Your task to perform on an android device: Open calendar and show me the fourth week of next month Image 0: 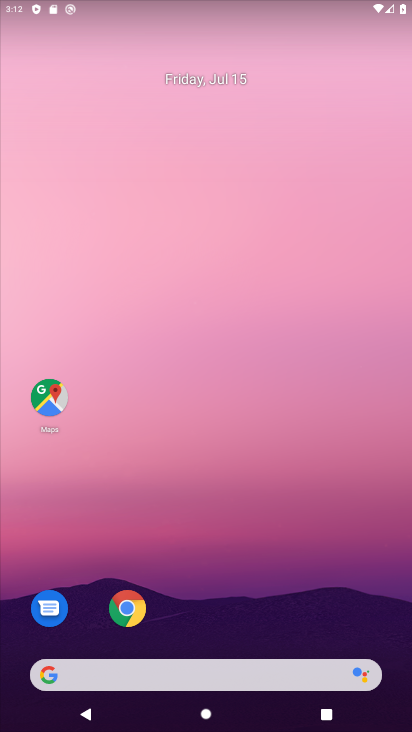
Step 0: drag from (183, 172) to (194, 8)
Your task to perform on an android device: Open calendar and show me the fourth week of next month Image 1: 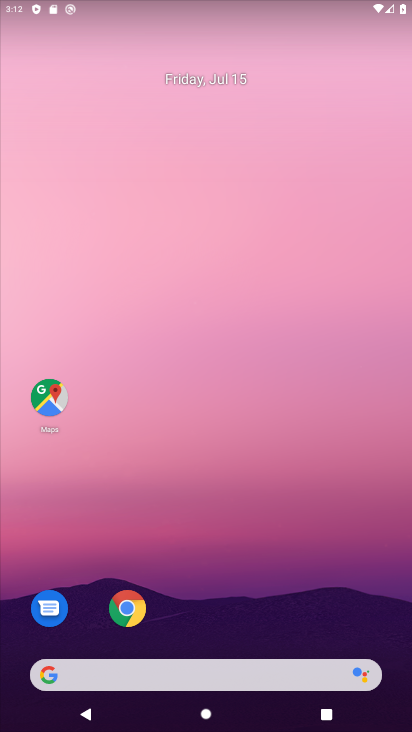
Step 1: drag from (202, 533) to (209, 186)
Your task to perform on an android device: Open calendar and show me the fourth week of next month Image 2: 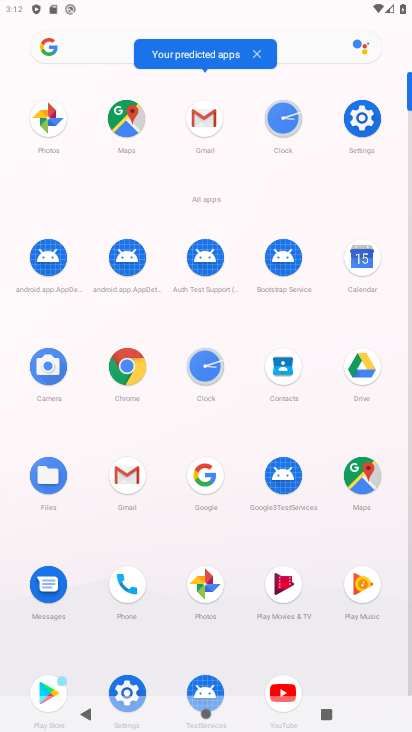
Step 2: click (356, 261)
Your task to perform on an android device: Open calendar and show me the fourth week of next month Image 3: 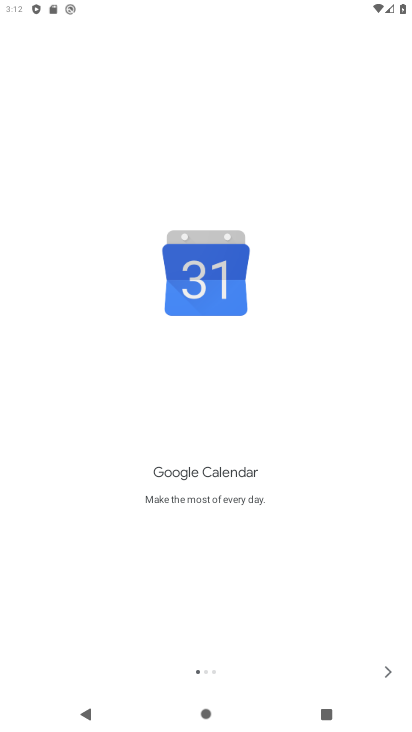
Step 3: click (390, 674)
Your task to perform on an android device: Open calendar and show me the fourth week of next month Image 4: 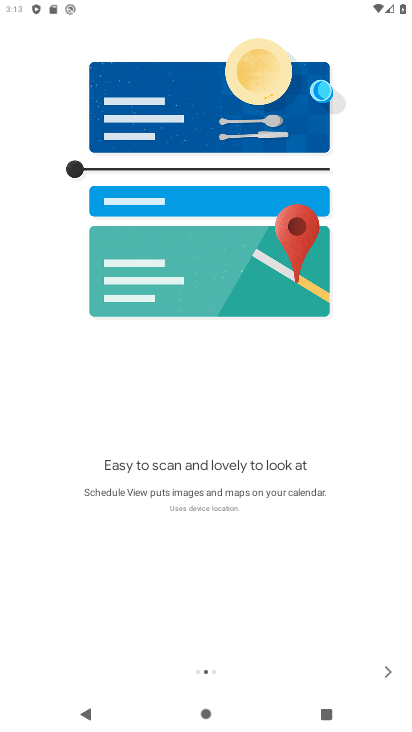
Step 4: click (390, 674)
Your task to perform on an android device: Open calendar and show me the fourth week of next month Image 5: 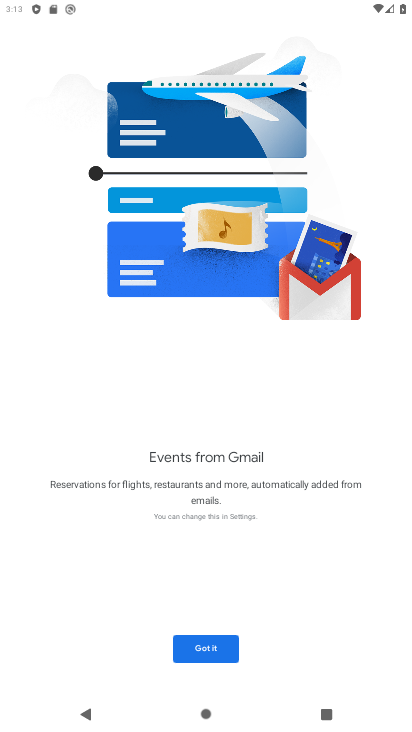
Step 5: click (202, 657)
Your task to perform on an android device: Open calendar and show me the fourth week of next month Image 6: 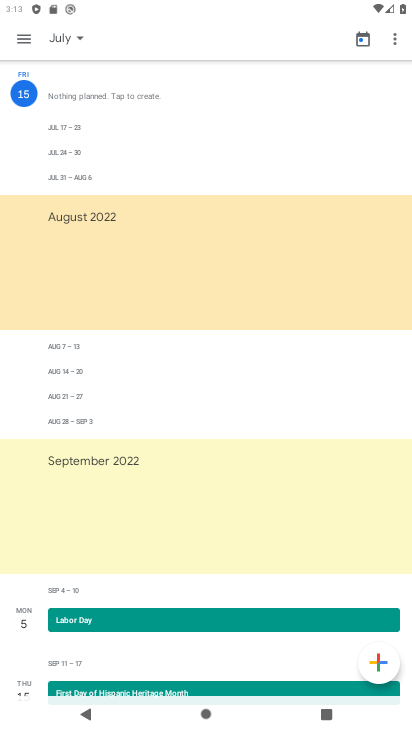
Step 6: click (58, 34)
Your task to perform on an android device: Open calendar and show me the fourth week of next month Image 7: 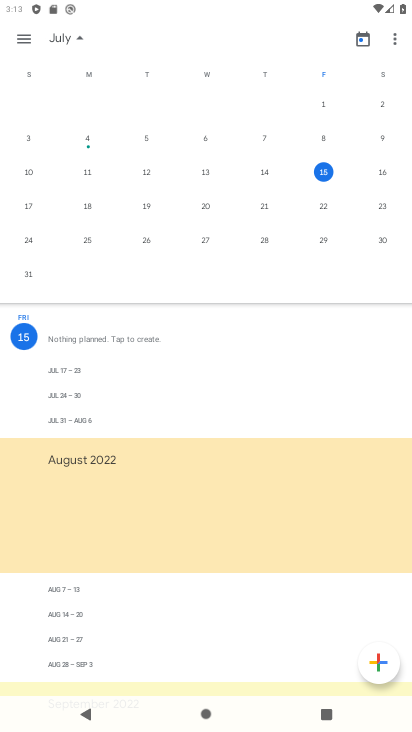
Step 7: drag from (259, 200) to (42, 164)
Your task to perform on an android device: Open calendar and show me the fourth week of next month Image 8: 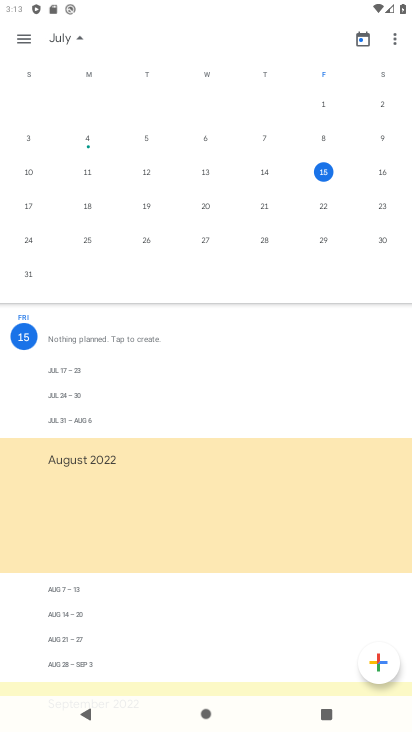
Step 8: drag from (295, 178) to (73, 179)
Your task to perform on an android device: Open calendar and show me the fourth week of next month Image 9: 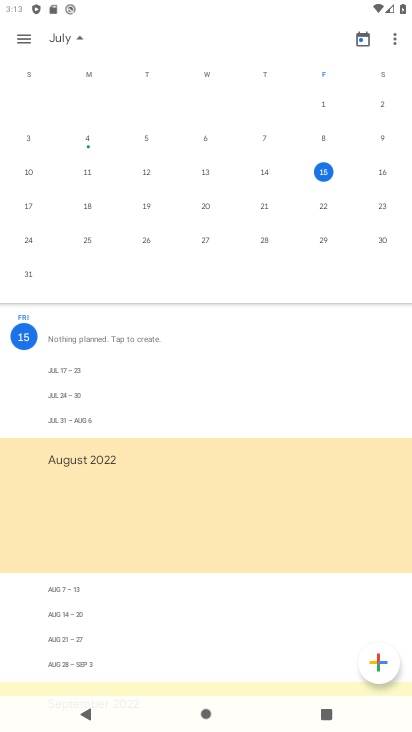
Step 9: drag from (284, 183) to (7, 187)
Your task to perform on an android device: Open calendar and show me the fourth week of next month Image 10: 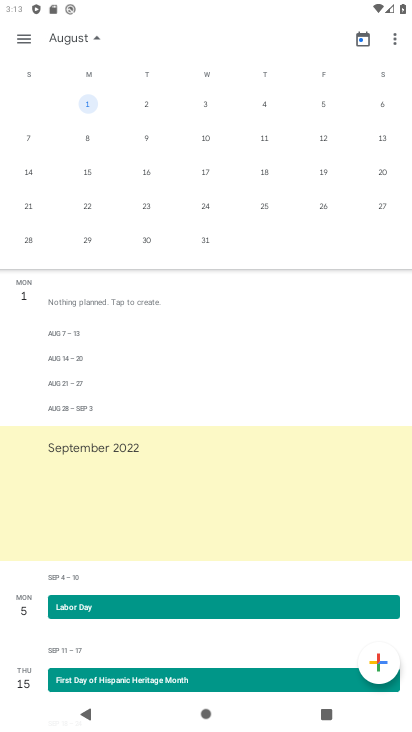
Step 10: click (30, 203)
Your task to perform on an android device: Open calendar and show me the fourth week of next month Image 11: 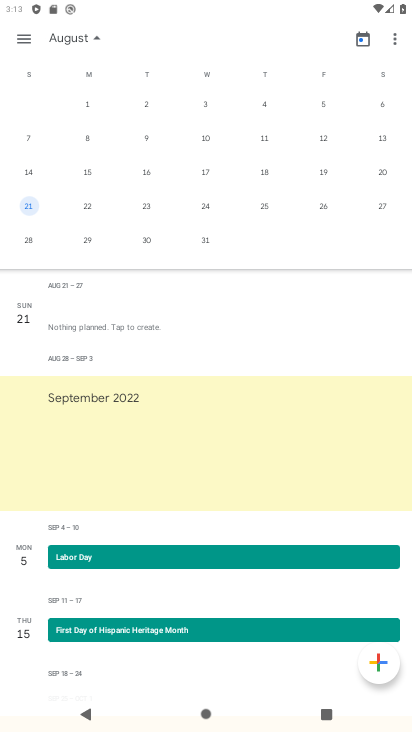
Step 11: click (20, 38)
Your task to perform on an android device: Open calendar and show me the fourth week of next month Image 12: 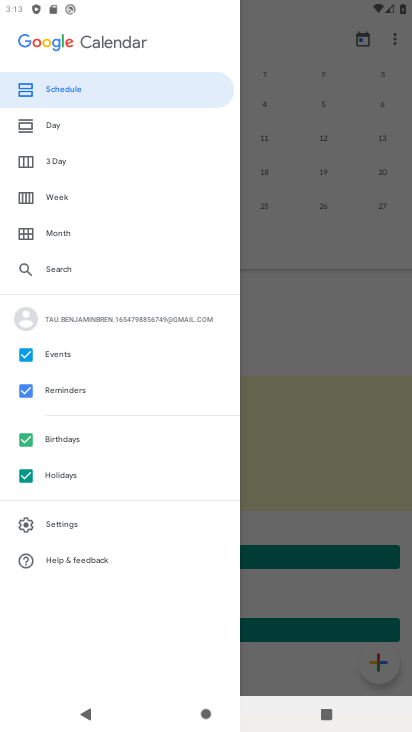
Step 12: click (48, 196)
Your task to perform on an android device: Open calendar and show me the fourth week of next month Image 13: 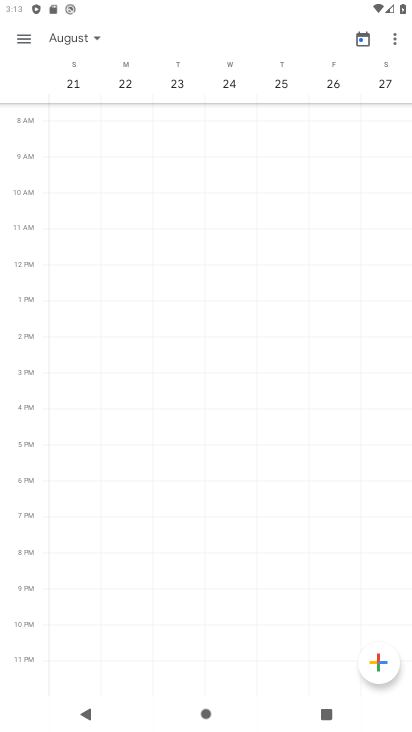
Step 13: task complete